Your task to perform on an android device: allow cookies in the chrome app Image 0: 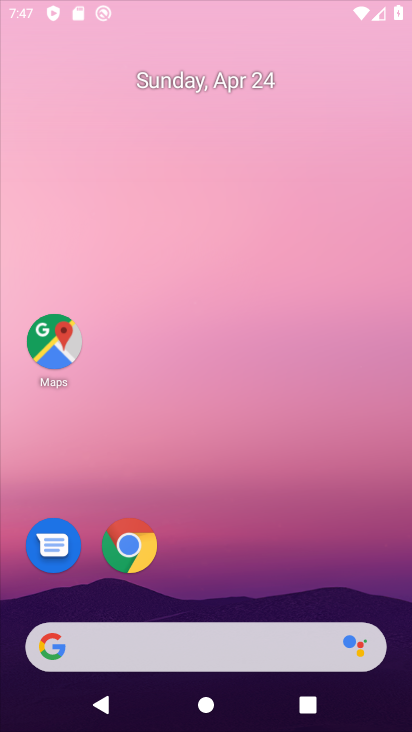
Step 0: click (43, 68)
Your task to perform on an android device: allow cookies in the chrome app Image 1: 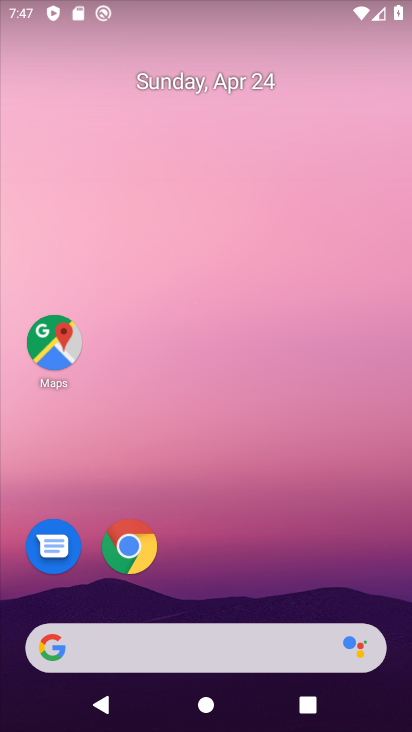
Step 1: drag from (238, 574) to (273, 410)
Your task to perform on an android device: allow cookies in the chrome app Image 2: 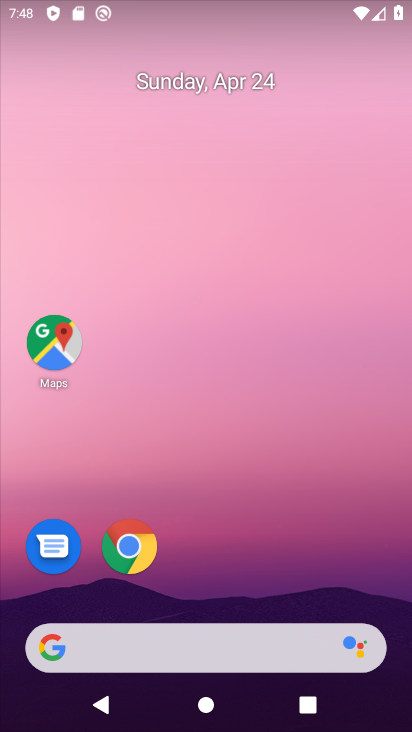
Step 2: click (231, 247)
Your task to perform on an android device: allow cookies in the chrome app Image 3: 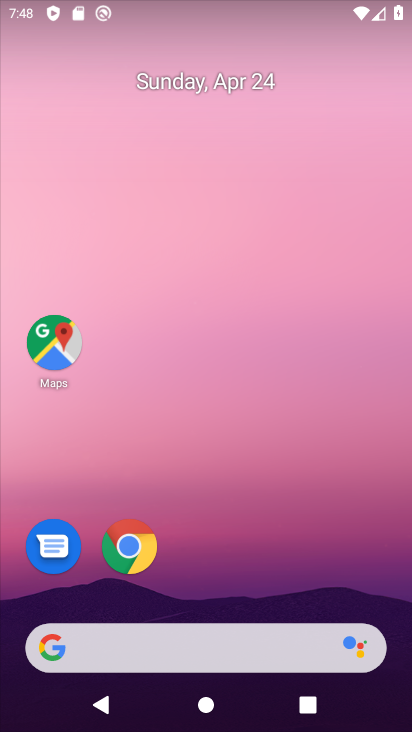
Step 3: drag from (306, 517) to (342, 325)
Your task to perform on an android device: allow cookies in the chrome app Image 4: 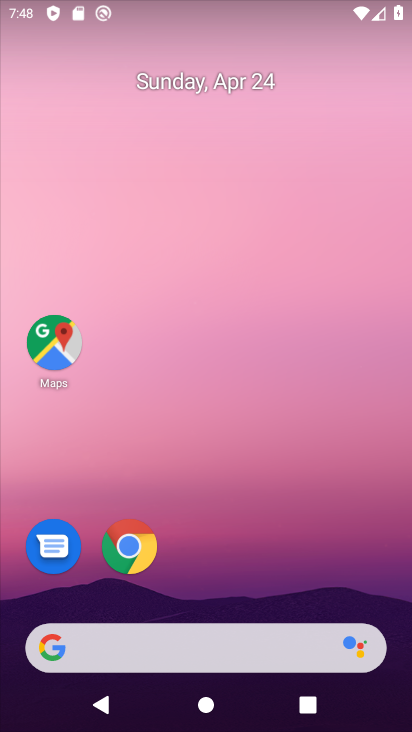
Step 4: drag from (237, 586) to (407, 597)
Your task to perform on an android device: allow cookies in the chrome app Image 5: 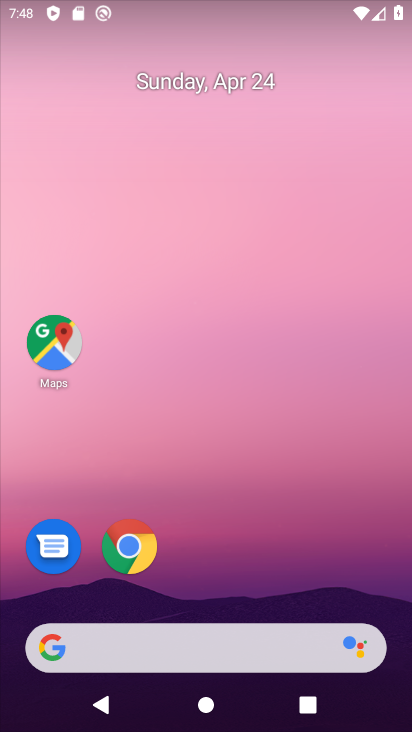
Step 5: click (128, 552)
Your task to perform on an android device: allow cookies in the chrome app Image 6: 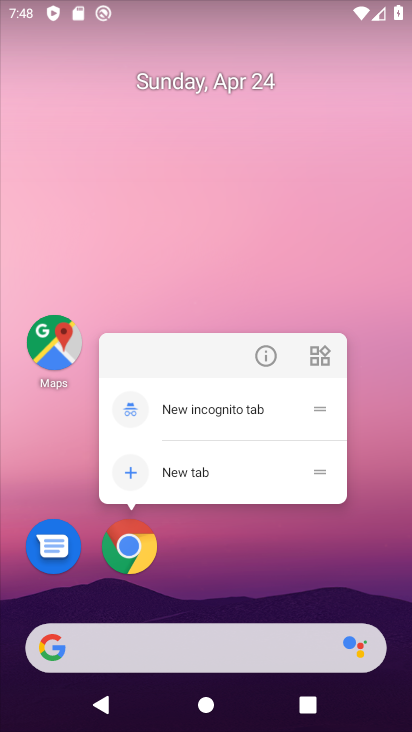
Step 6: click (276, 341)
Your task to perform on an android device: allow cookies in the chrome app Image 7: 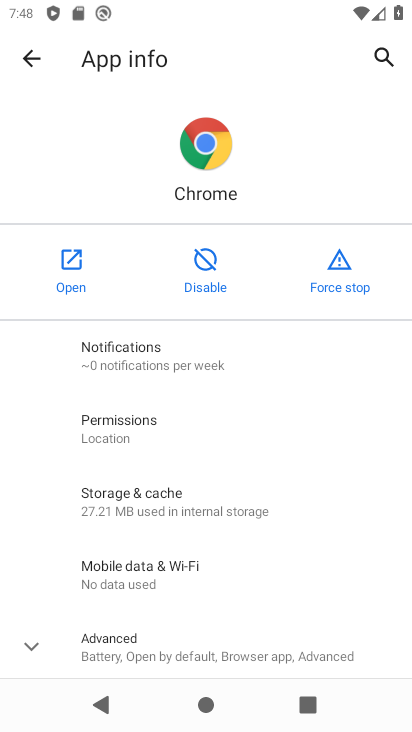
Step 7: click (95, 279)
Your task to perform on an android device: allow cookies in the chrome app Image 8: 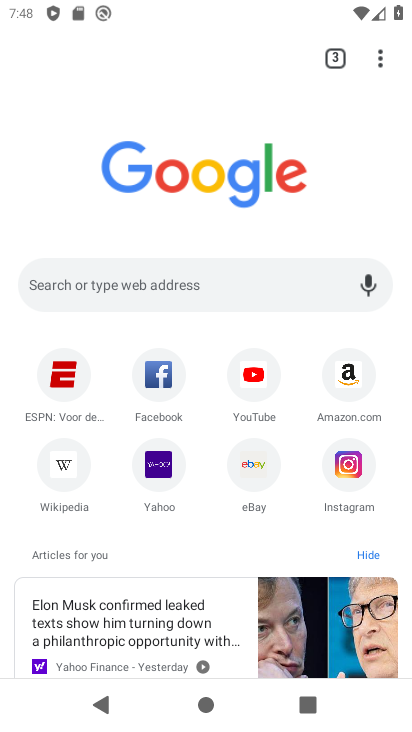
Step 8: drag from (380, 86) to (242, 553)
Your task to perform on an android device: allow cookies in the chrome app Image 9: 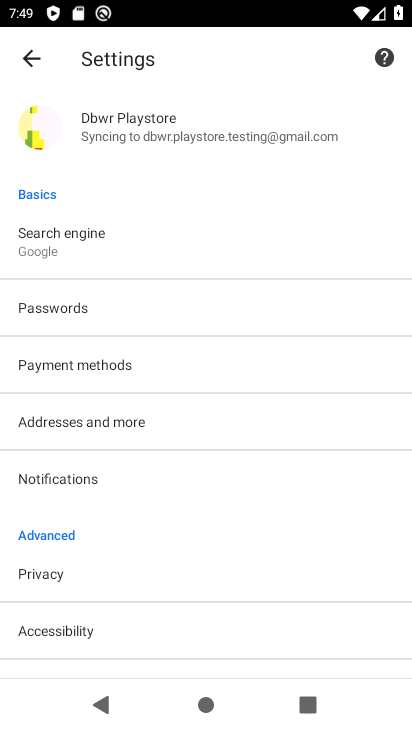
Step 9: drag from (133, 593) to (270, 281)
Your task to perform on an android device: allow cookies in the chrome app Image 10: 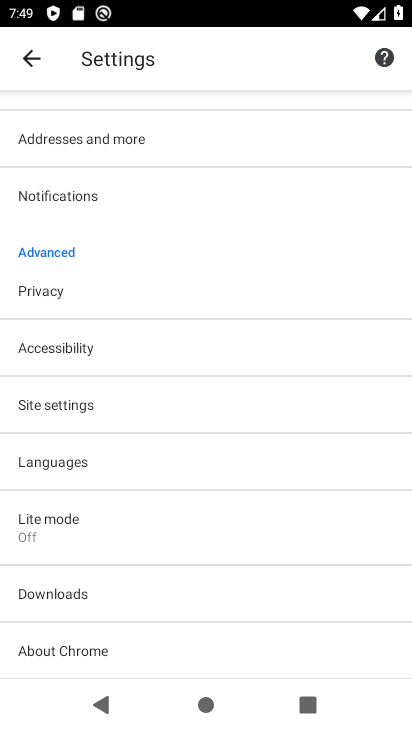
Step 10: click (153, 392)
Your task to perform on an android device: allow cookies in the chrome app Image 11: 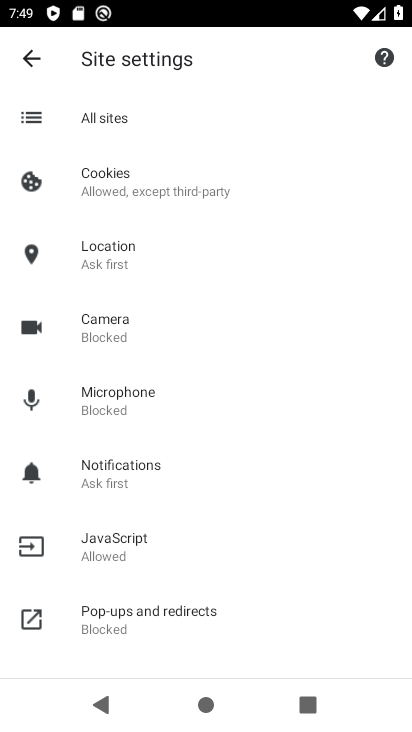
Step 11: click (230, 201)
Your task to perform on an android device: allow cookies in the chrome app Image 12: 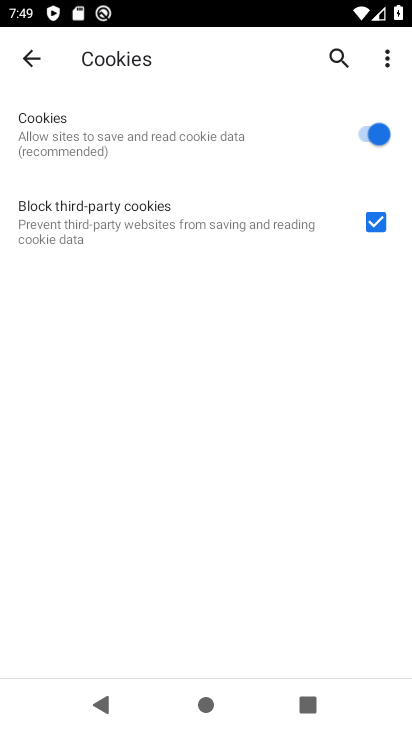
Step 12: task complete